Your task to perform on an android device: Go to wifi settings Image 0: 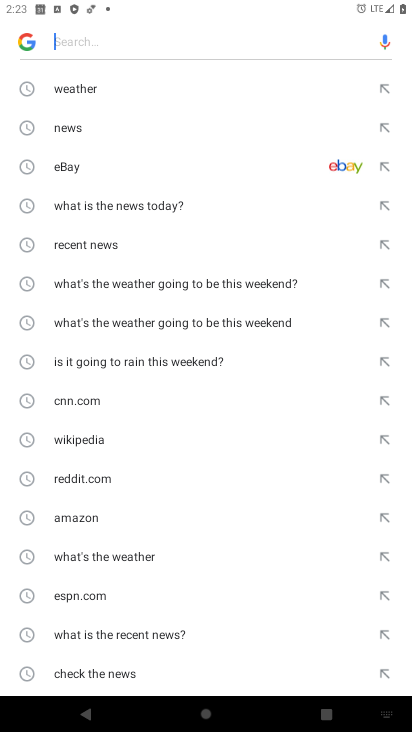
Step 0: press back button
Your task to perform on an android device: Go to wifi settings Image 1: 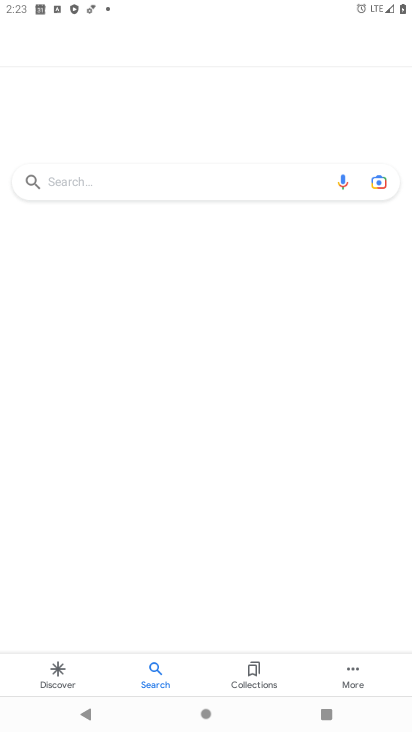
Step 1: press back button
Your task to perform on an android device: Go to wifi settings Image 2: 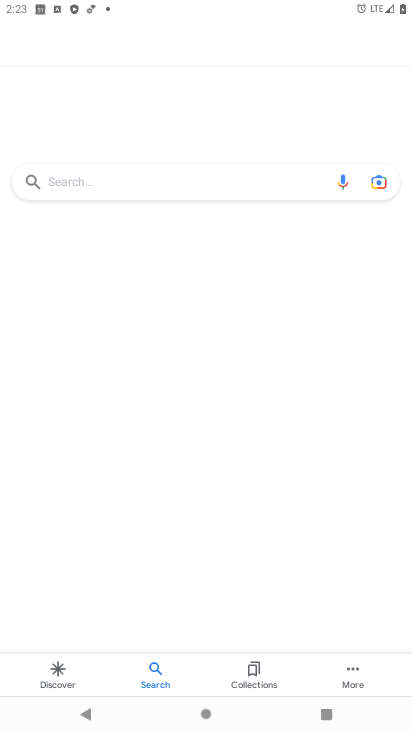
Step 2: press back button
Your task to perform on an android device: Go to wifi settings Image 3: 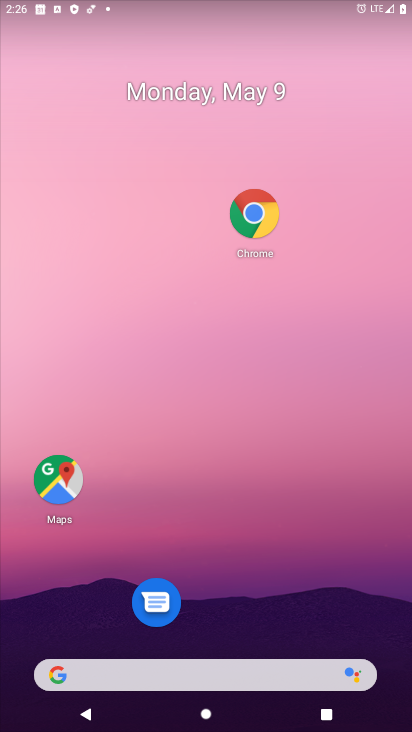
Step 3: drag from (262, 602) to (306, 190)
Your task to perform on an android device: Go to wifi settings Image 4: 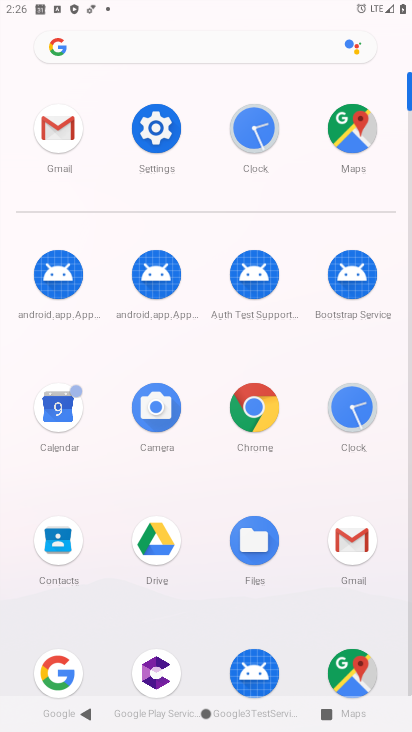
Step 4: click (175, 132)
Your task to perform on an android device: Go to wifi settings Image 5: 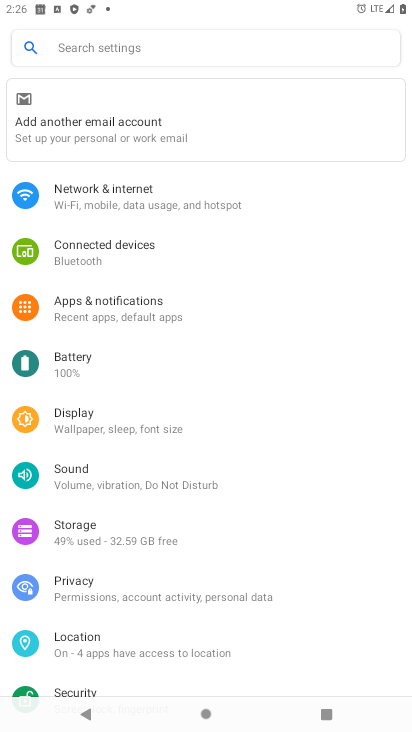
Step 5: click (105, 217)
Your task to perform on an android device: Go to wifi settings Image 6: 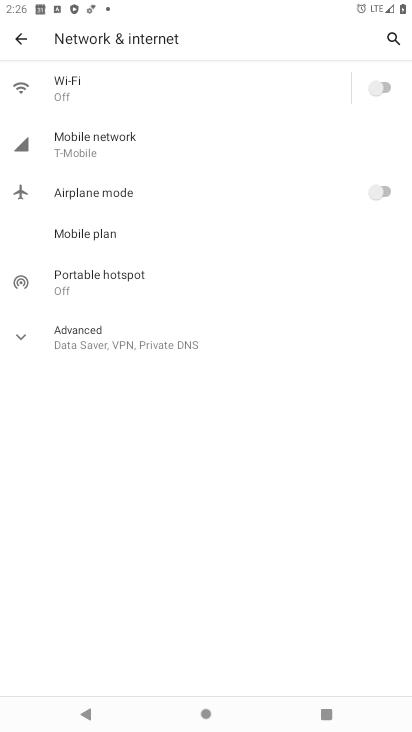
Step 6: click (385, 74)
Your task to perform on an android device: Go to wifi settings Image 7: 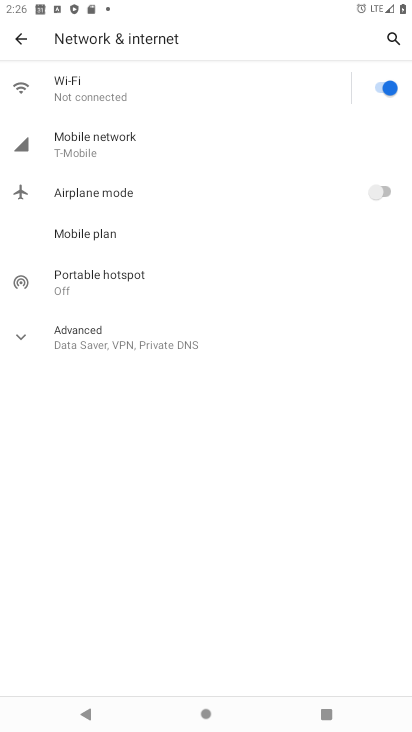
Step 7: click (235, 99)
Your task to perform on an android device: Go to wifi settings Image 8: 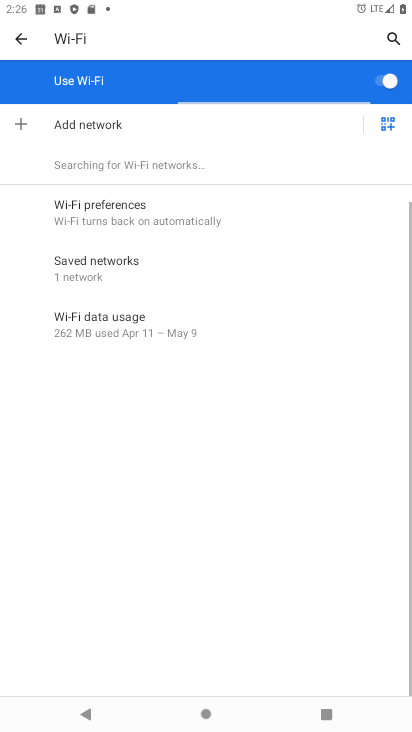
Step 8: task complete